Your task to perform on an android device: delete location history Image 0: 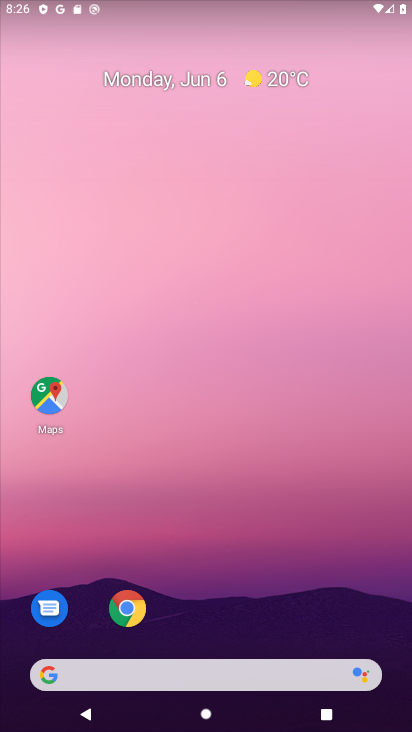
Step 0: drag from (351, 649) to (270, 82)
Your task to perform on an android device: delete location history Image 1: 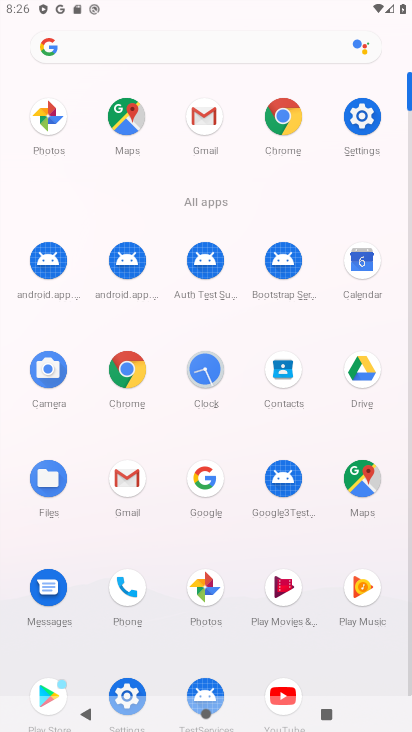
Step 1: click (376, 133)
Your task to perform on an android device: delete location history Image 2: 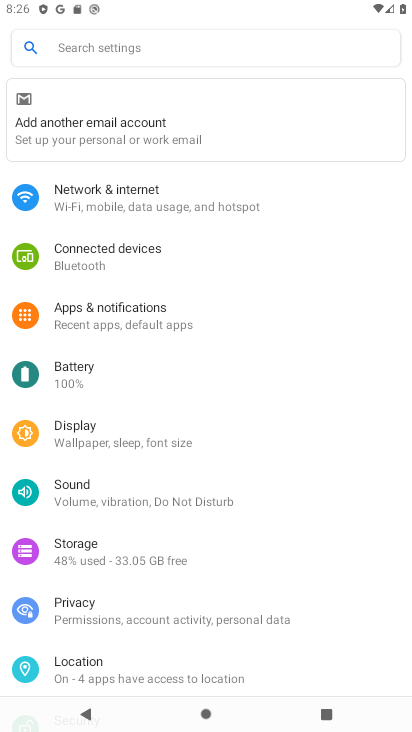
Step 2: click (130, 656)
Your task to perform on an android device: delete location history Image 3: 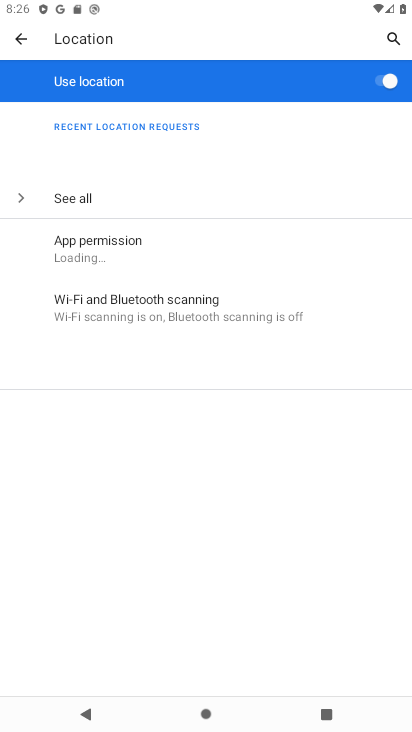
Step 3: task complete